Your task to perform on an android device: Open Chrome and go to the settings page Image 0: 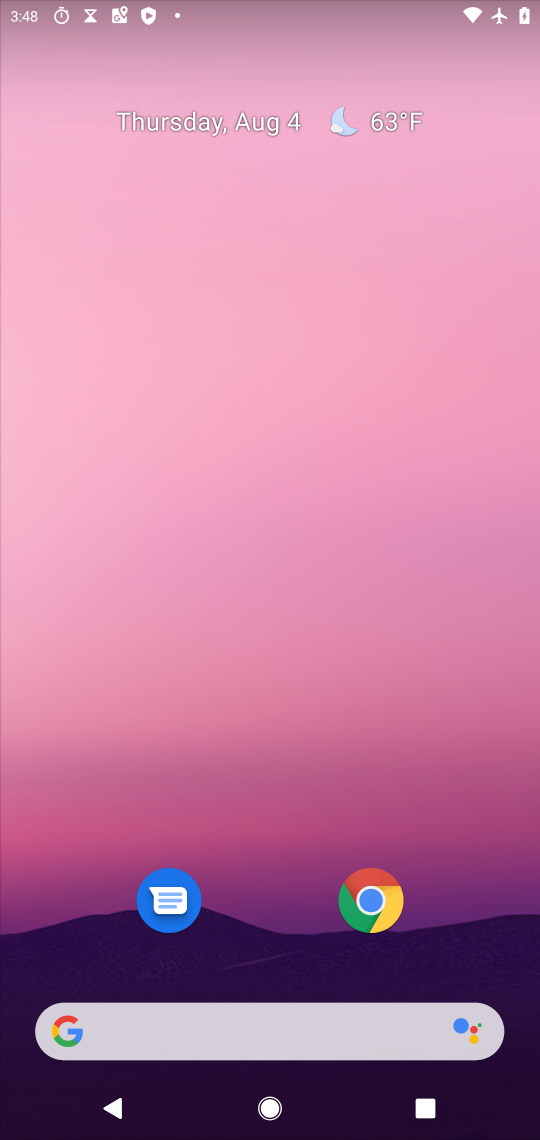
Step 0: drag from (465, 941) to (317, 29)
Your task to perform on an android device: Open Chrome and go to the settings page Image 1: 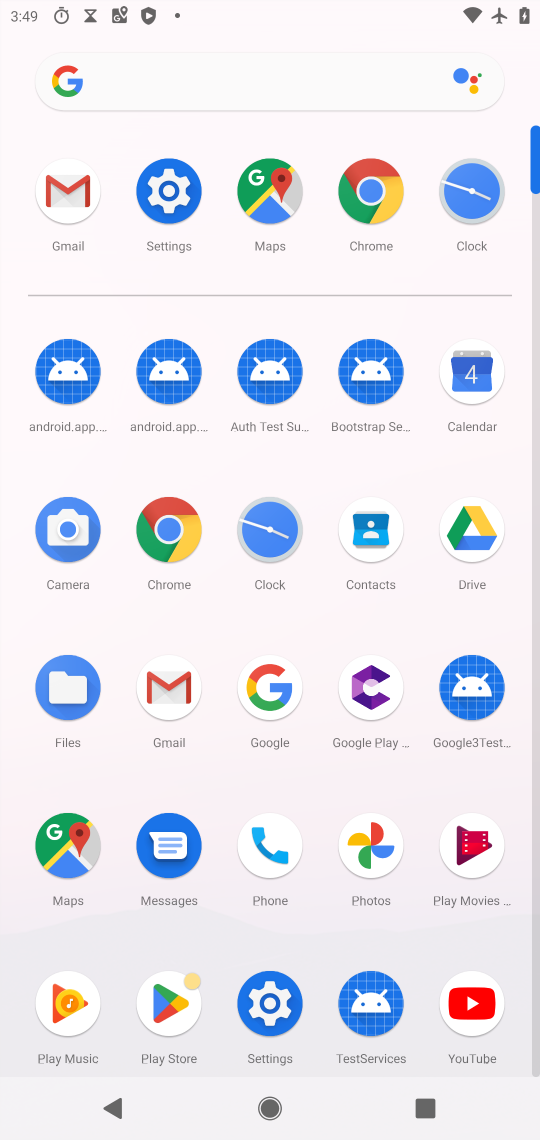
Step 1: click (389, 211)
Your task to perform on an android device: Open Chrome and go to the settings page Image 2: 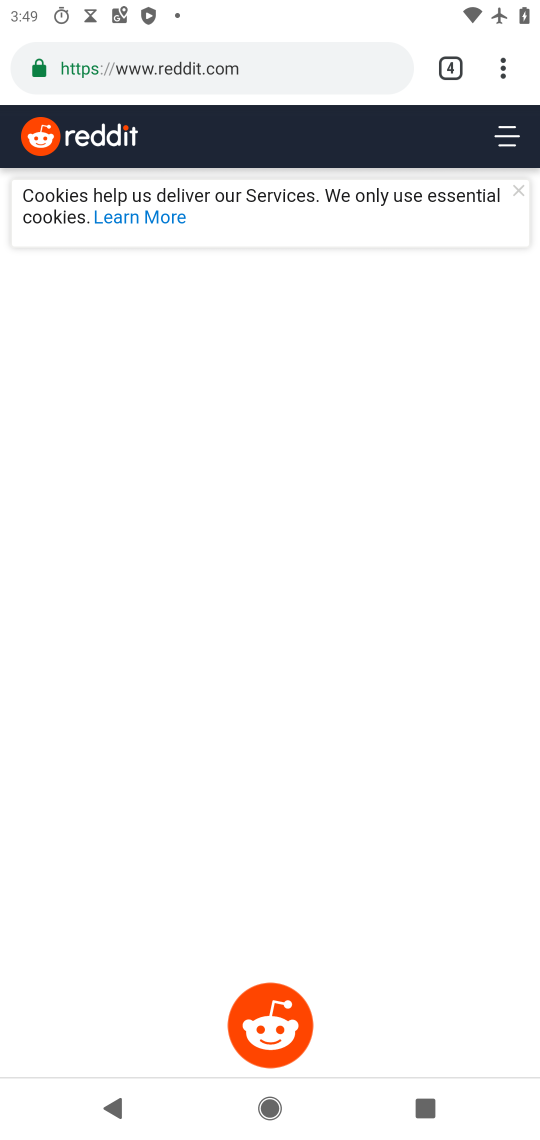
Step 2: click (507, 86)
Your task to perform on an android device: Open Chrome and go to the settings page Image 3: 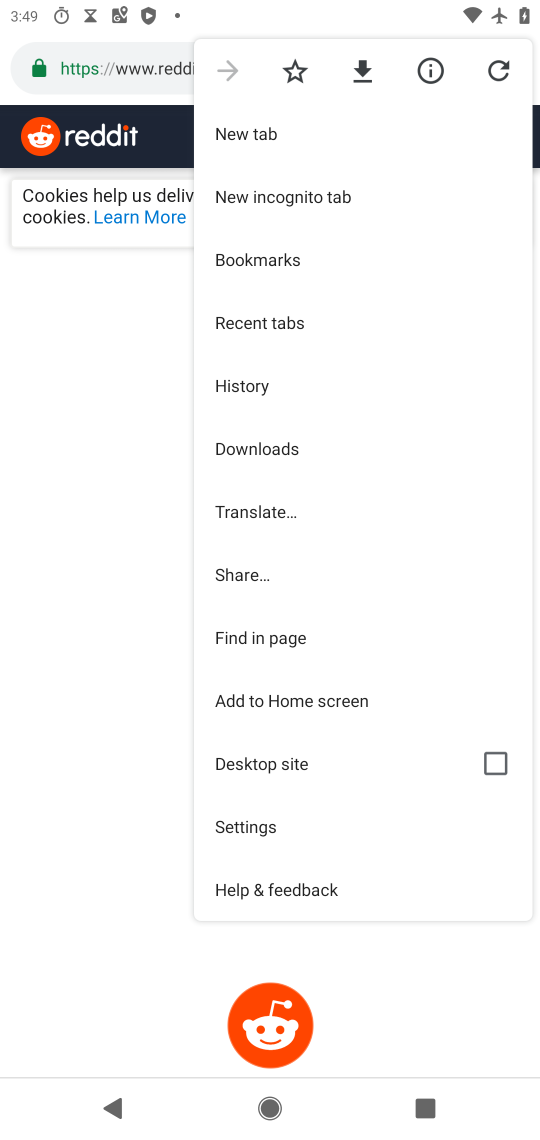
Step 3: click (320, 840)
Your task to perform on an android device: Open Chrome and go to the settings page Image 4: 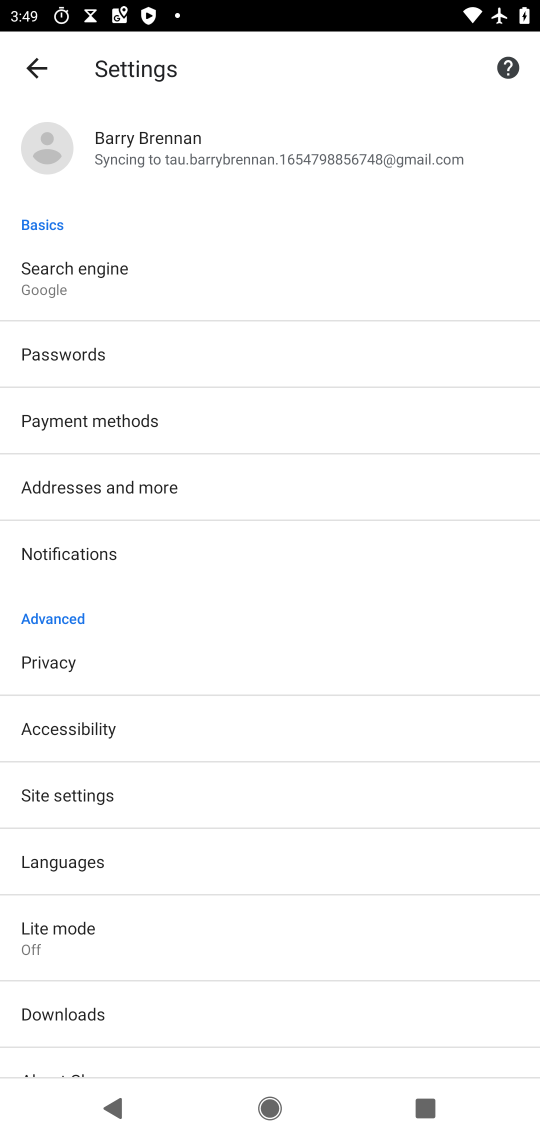
Step 4: task complete